Your task to perform on an android device: open device folders in google photos Image 0: 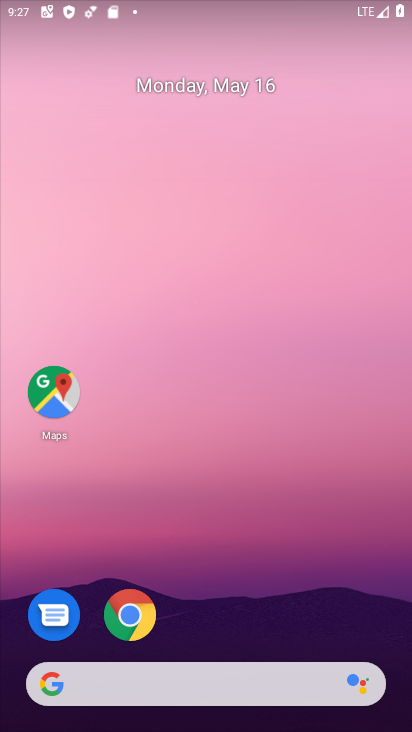
Step 0: drag from (191, 461) to (191, 141)
Your task to perform on an android device: open device folders in google photos Image 1: 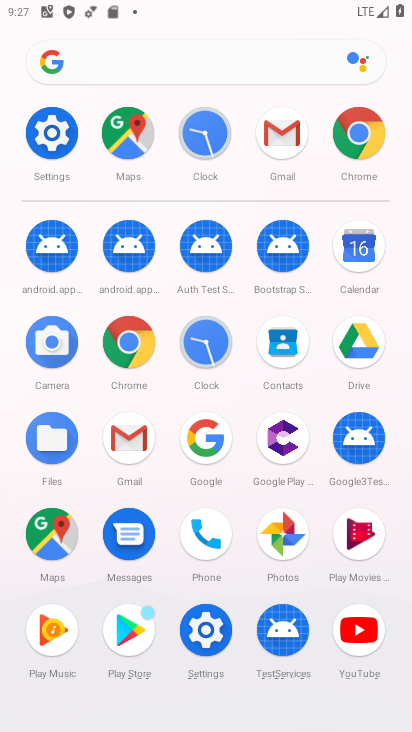
Step 1: click (281, 546)
Your task to perform on an android device: open device folders in google photos Image 2: 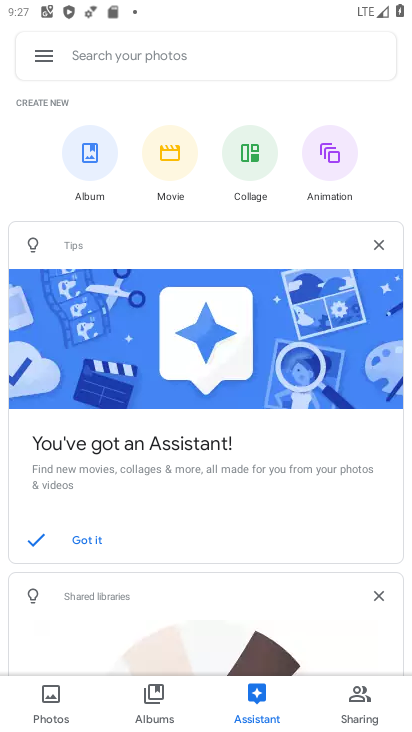
Step 2: click (45, 49)
Your task to perform on an android device: open device folders in google photos Image 3: 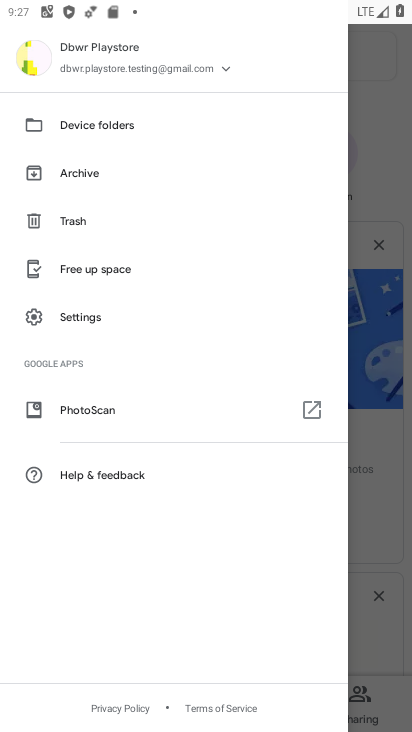
Step 3: click (93, 122)
Your task to perform on an android device: open device folders in google photos Image 4: 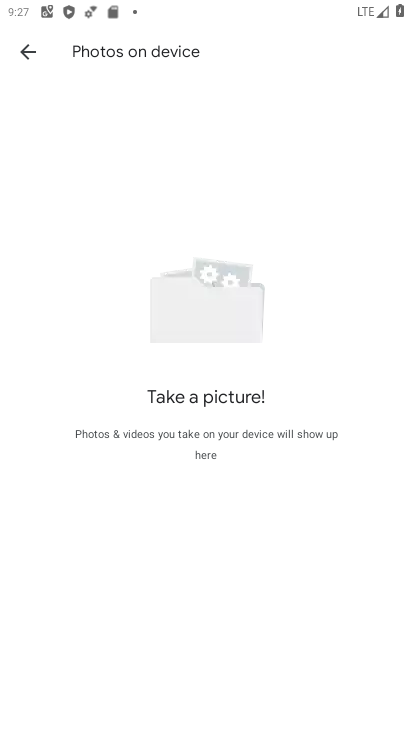
Step 4: task complete